Your task to perform on an android device: set the stopwatch Image 0: 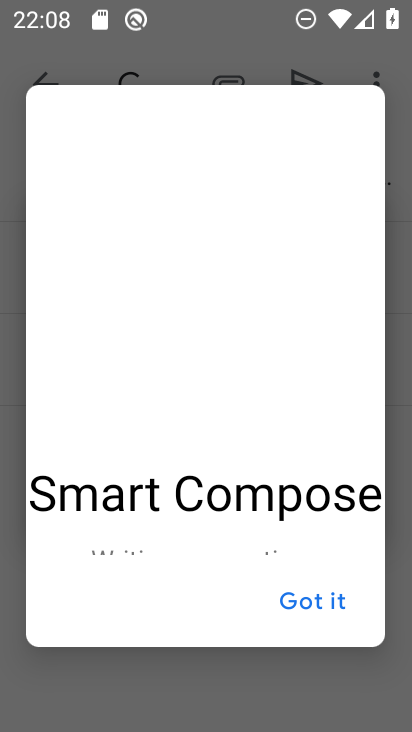
Step 0: press home button
Your task to perform on an android device: set the stopwatch Image 1: 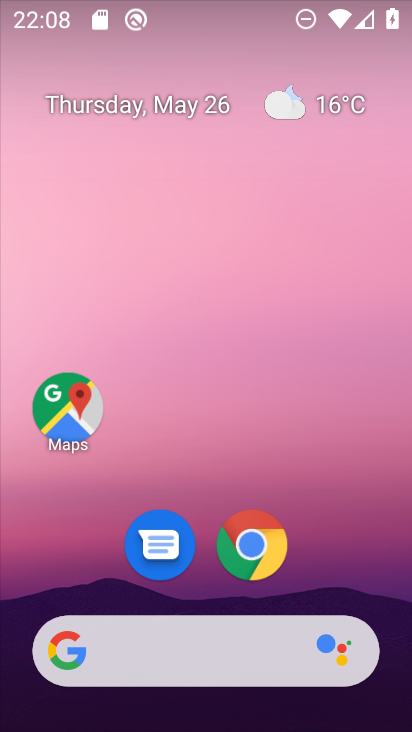
Step 1: drag from (333, 539) to (350, 76)
Your task to perform on an android device: set the stopwatch Image 2: 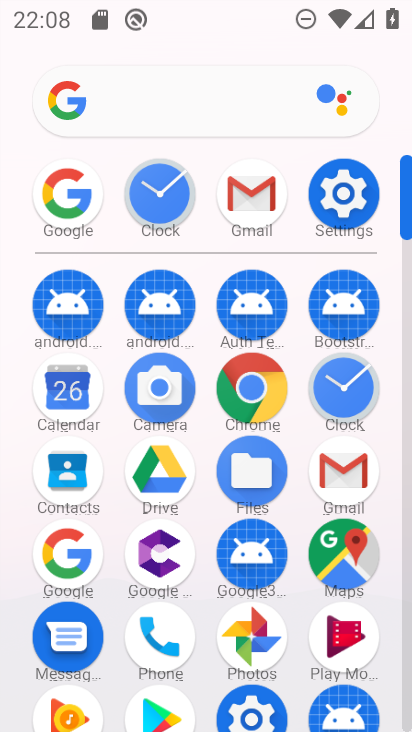
Step 2: click (338, 396)
Your task to perform on an android device: set the stopwatch Image 3: 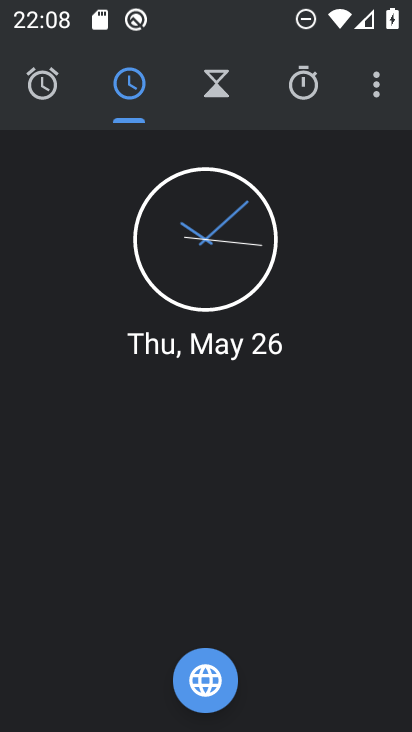
Step 3: click (302, 91)
Your task to perform on an android device: set the stopwatch Image 4: 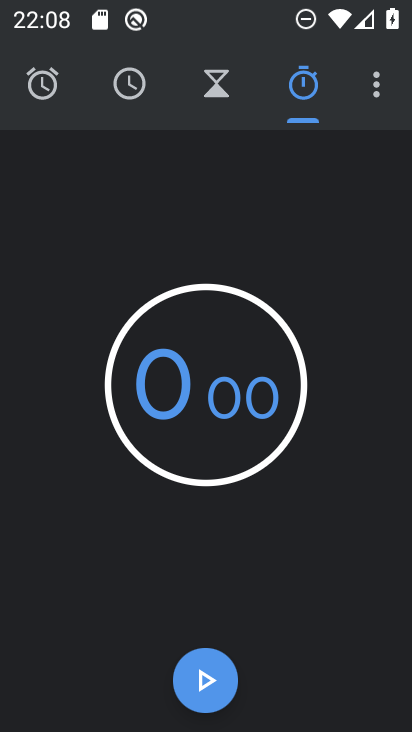
Step 4: click (208, 695)
Your task to perform on an android device: set the stopwatch Image 5: 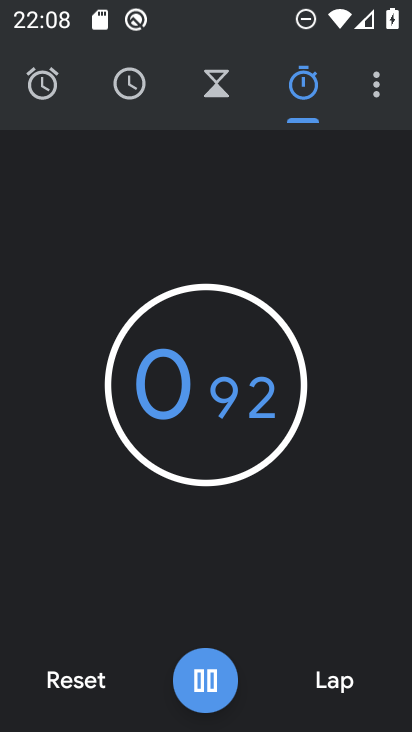
Step 5: click (206, 691)
Your task to perform on an android device: set the stopwatch Image 6: 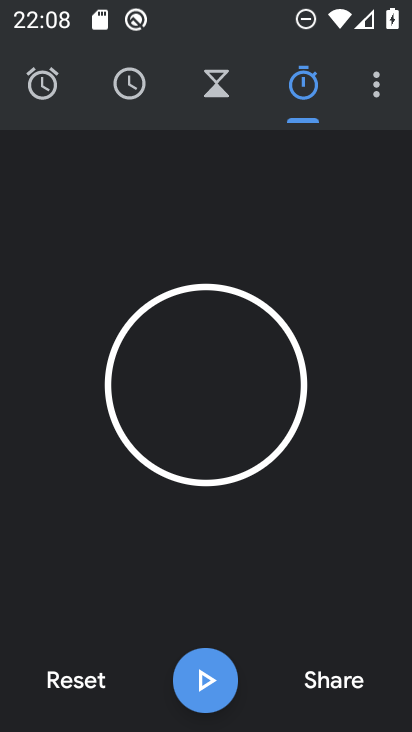
Step 6: task complete